Your task to perform on an android device: visit the assistant section in the google photos Image 0: 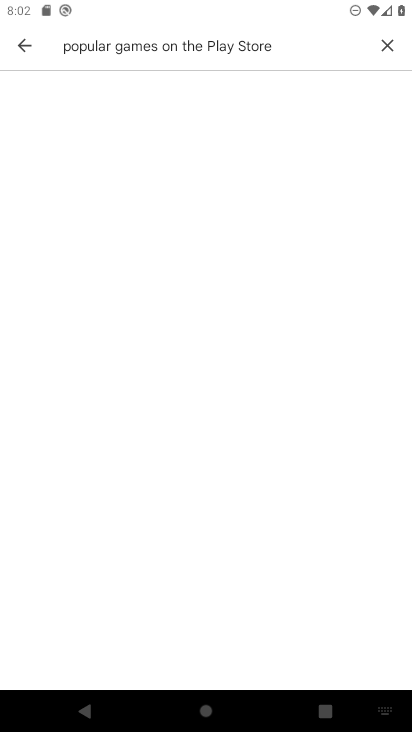
Step 0: press home button
Your task to perform on an android device: visit the assistant section in the google photos Image 1: 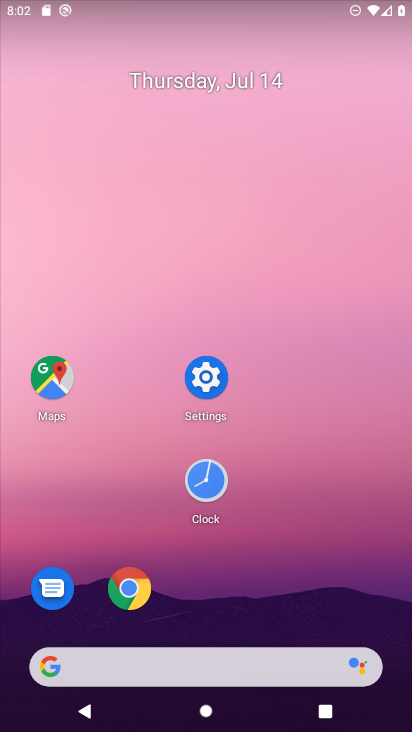
Step 1: drag from (409, 586) to (405, 163)
Your task to perform on an android device: visit the assistant section in the google photos Image 2: 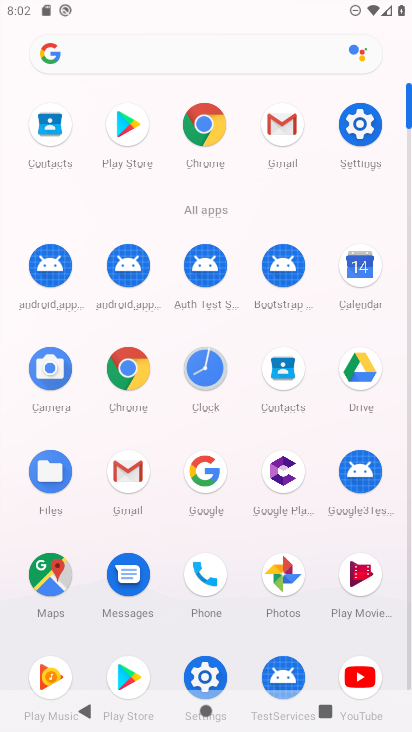
Step 2: click (280, 574)
Your task to perform on an android device: visit the assistant section in the google photos Image 3: 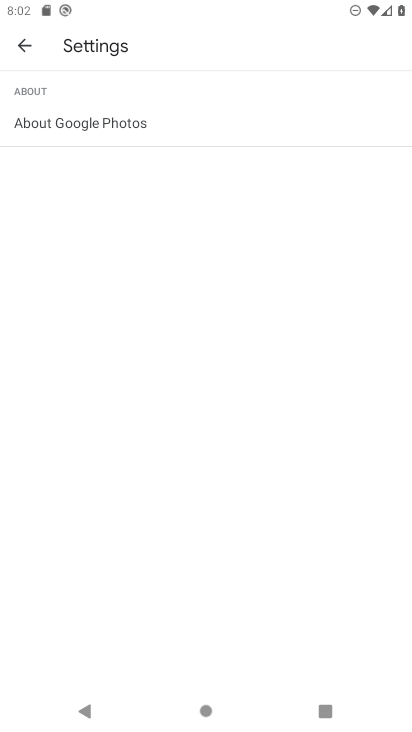
Step 3: click (20, 45)
Your task to perform on an android device: visit the assistant section in the google photos Image 4: 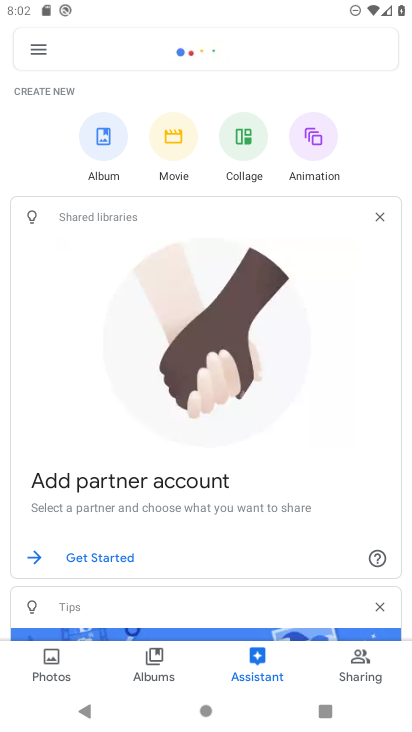
Step 4: click (257, 656)
Your task to perform on an android device: visit the assistant section in the google photos Image 5: 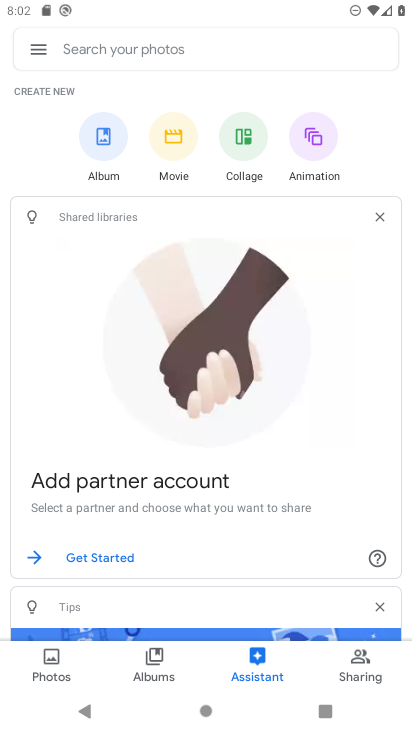
Step 5: task complete